Your task to perform on an android device: Go to Amazon Image 0: 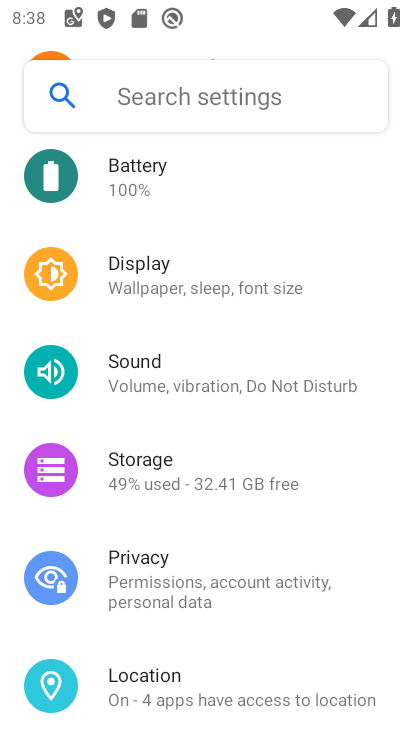
Step 0: press home button
Your task to perform on an android device: Go to Amazon Image 1: 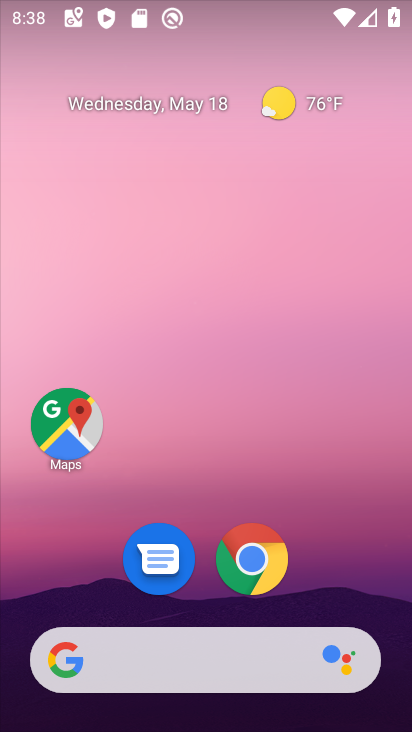
Step 1: click (258, 560)
Your task to perform on an android device: Go to Amazon Image 2: 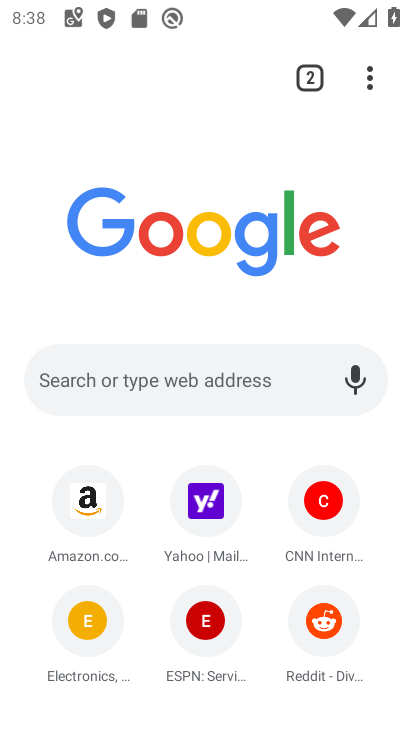
Step 2: click (89, 497)
Your task to perform on an android device: Go to Amazon Image 3: 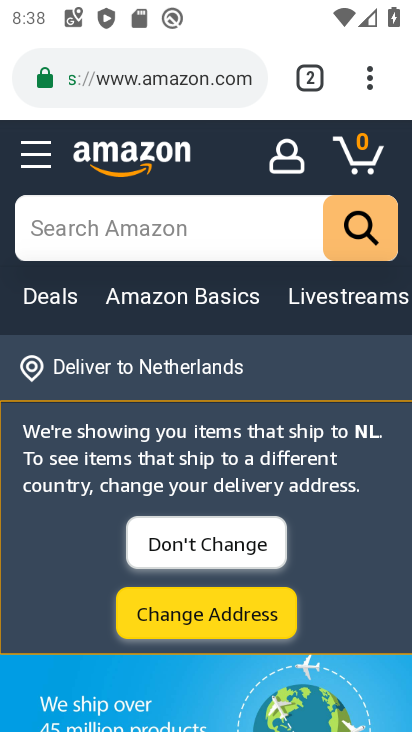
Step 3: task complete